Your task to perform on an android device: Go to settings Image 0: 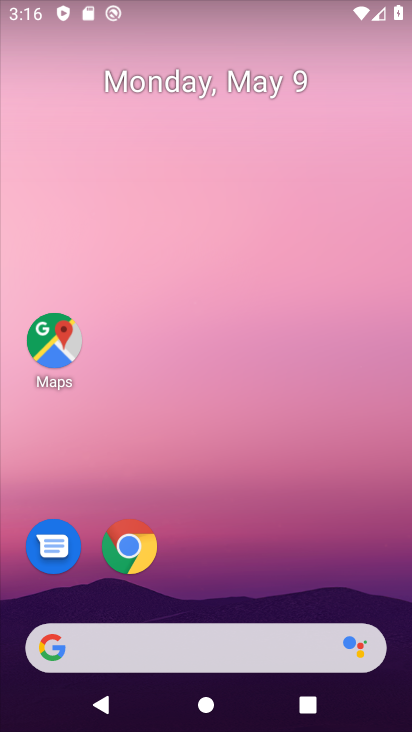
Step 0: drag from (274, 410) to (271, 147)
Your task to perform on an android device: Go to settings Image 1: 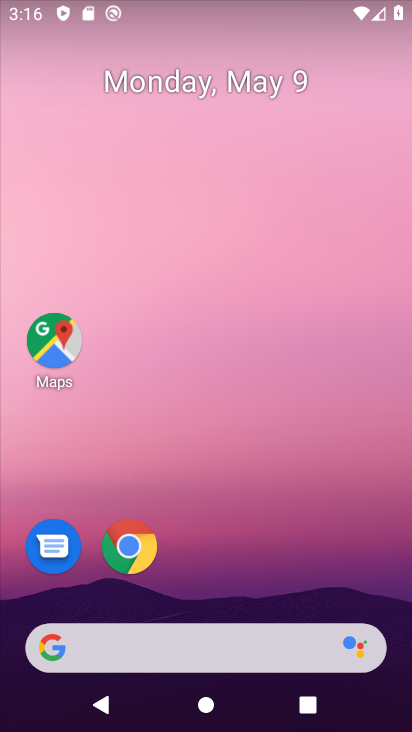
Step 1: drag from (264, 505) to (206, 29)
Your task to perform on an android device: Go to settings Image 2: 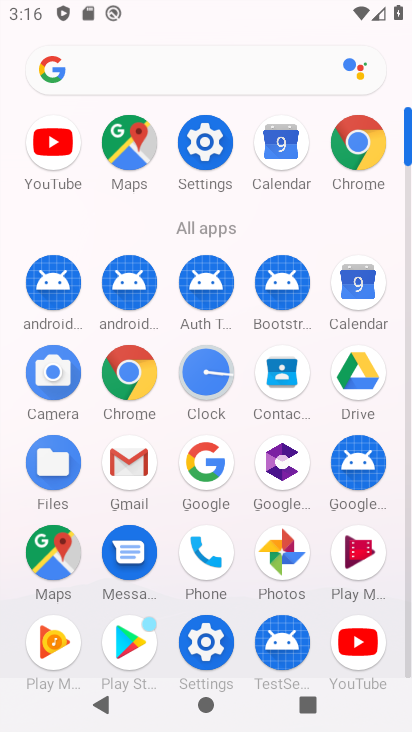
Step 2: click (218, 148)
Your task to perform on an android device: Go to settings Image 3: 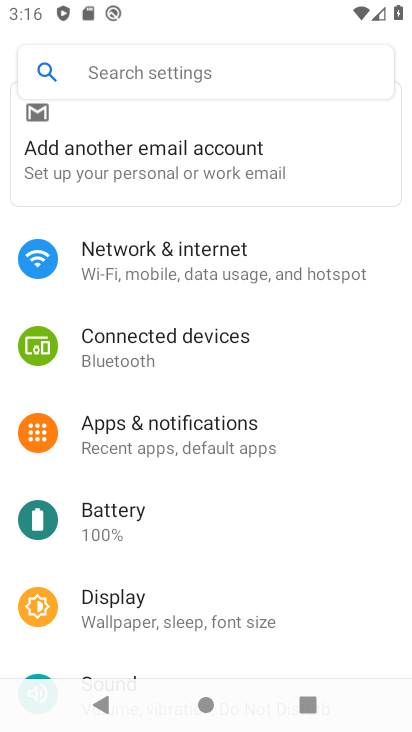
Step 3: task complete